Your task to perform on an android device: turn on the 24-hour format for clock Image 0: 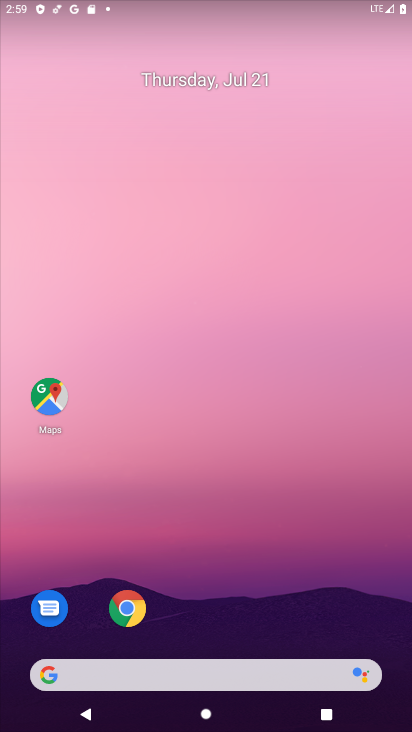
Step 0: drag from (214, 643) to (272, 49)
Your task to perform on an android device: turn on the 24-hour format for clock Image 1: 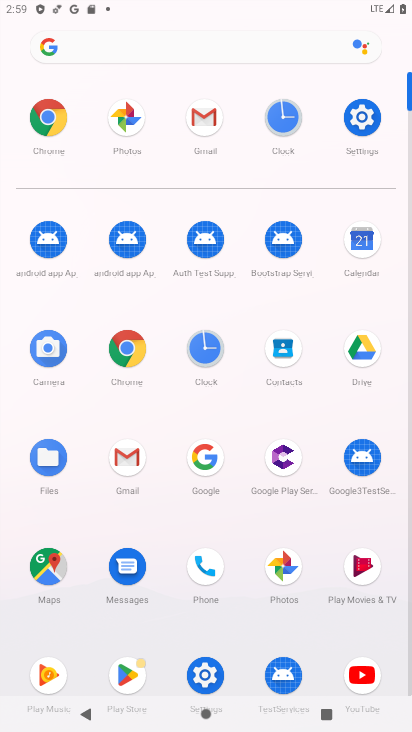
Step 1: click (209, 353)
Your task to perform on an android device: turn on the 24-hour format for clock Image 2: 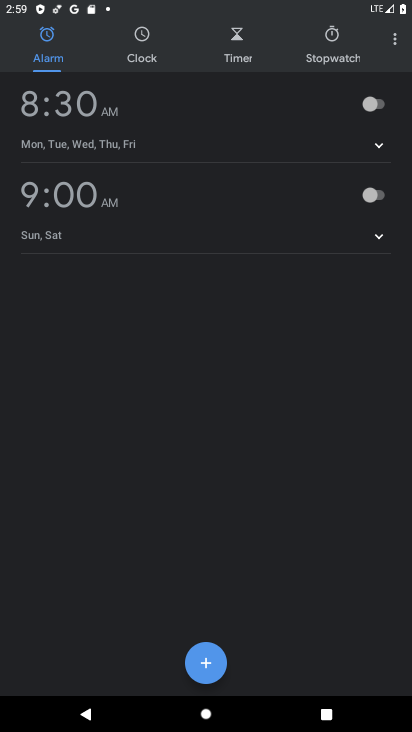
Step 2: drag from (399, 44) to (298, 72)
Your task to perform on an android device: turn on the 24-hour format for clock Image 3: 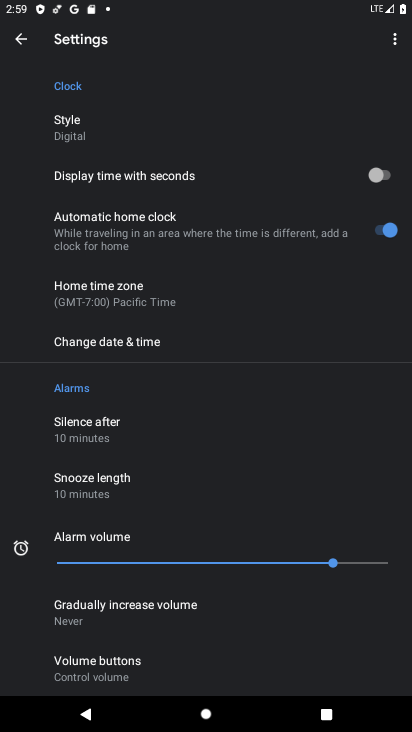
Step 3: click (111, 342)
Your task to perform on an android device: turn on the 24-hour format for clock Image 4: 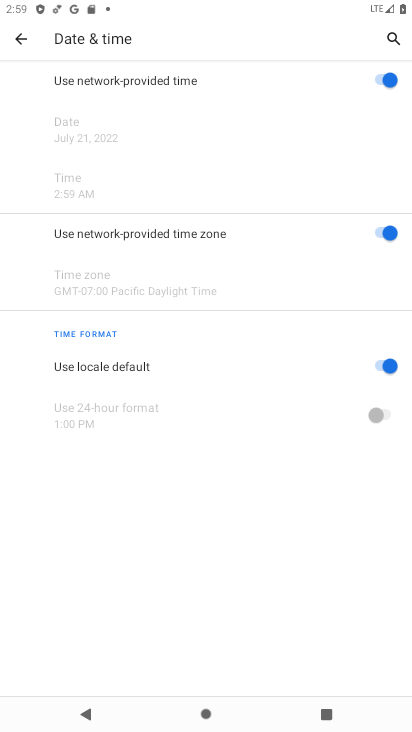
Step 4: click (386, 367)
Your task to perform on an android device: turn on the 24-hour format for clock Image 5: 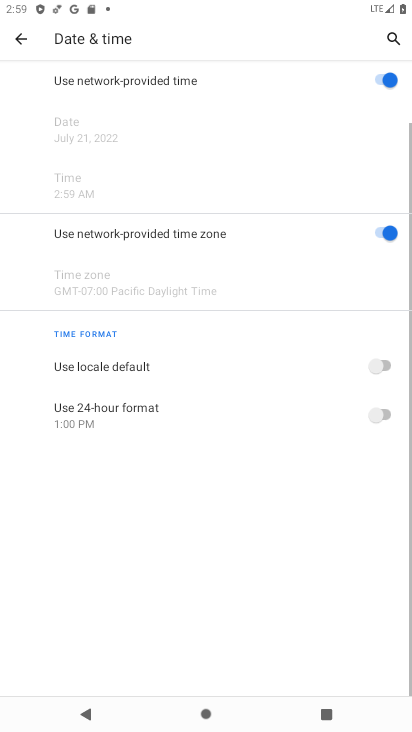
Step 5: click (377, 412)
Your task to perform on an android device: turn on the 24-hour format for clock Image 6: 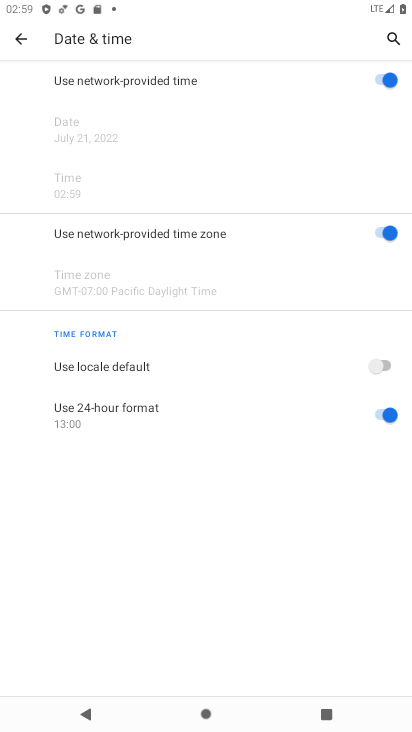
Step 6: task complete